Your task to perform on an android device: Open Maps and search for coffee Image 0: 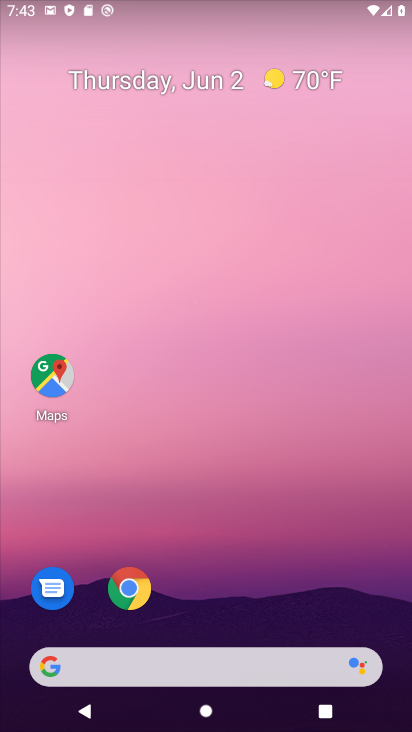
Step 0: click (52, 363)
Your task to perform on an android device: Open Maps and search for coffee Image 1: 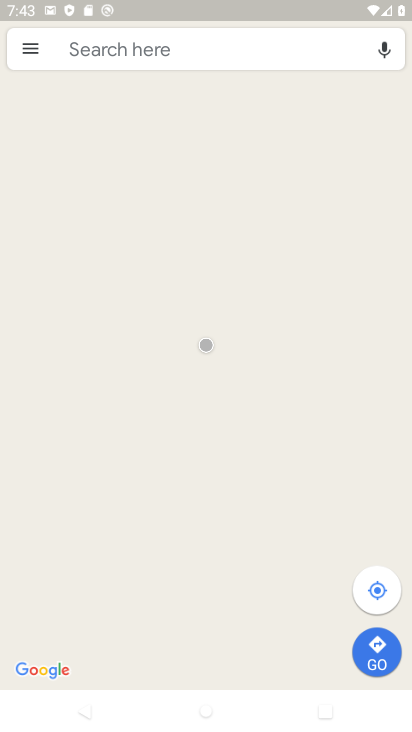
Step 1: click (195, 49)
Your task to perform on an android device: Open Maps and search for coffee Image 2: 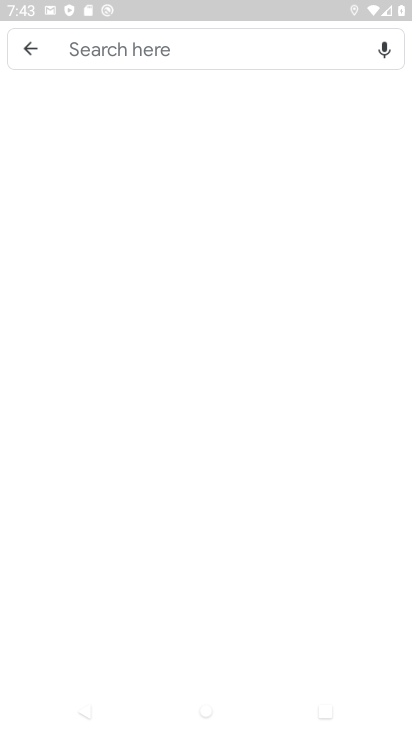
Step 2: type "coffee"
Your task to perform on an android device: Open Maps and search for coffee Image 3: 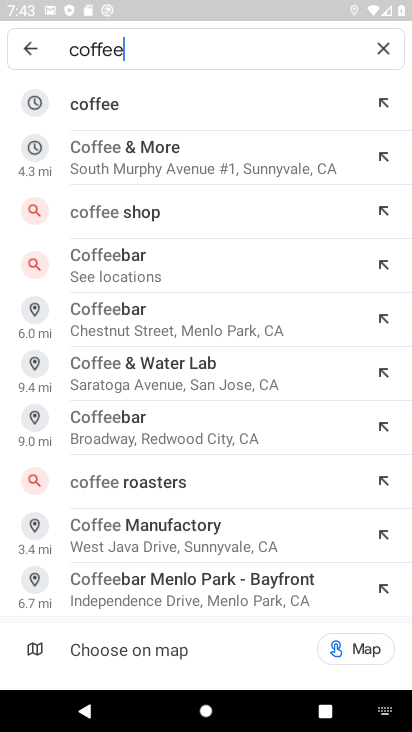
Step 3: click (113, 96)
Your task to perform on an android device: Open Maps and search for coffee Image 4: 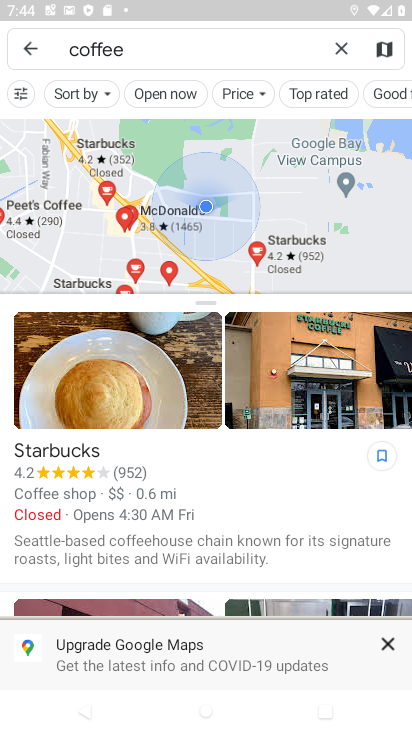
Step 4: task complete